Your task to perform on an android device: turn on the 12-hour format for clock Image 0: 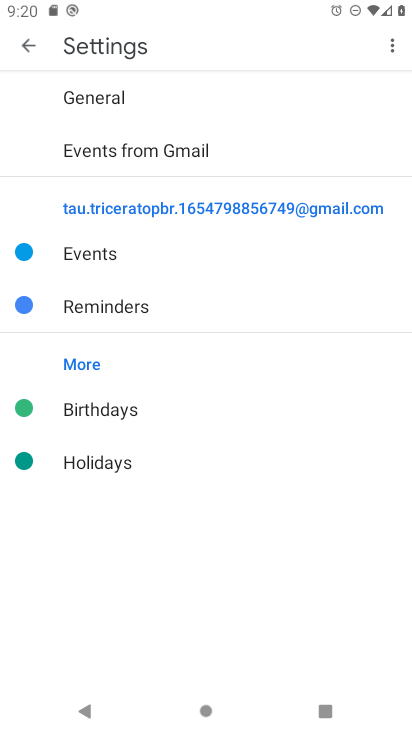
Step 0: press home button
Your task to perform on an android device: turn on the 12-hour format for clock Image 1: 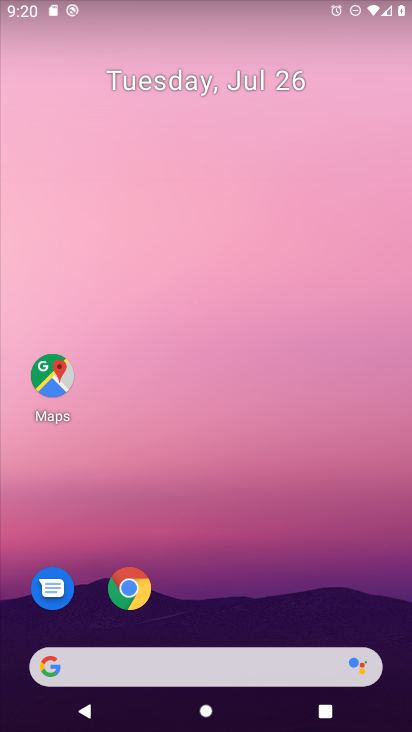
Step 1: drag from (211, 614) to (312, 21)
Your task to perform on an android device: turn on the 12-hour format for clock Image 2: 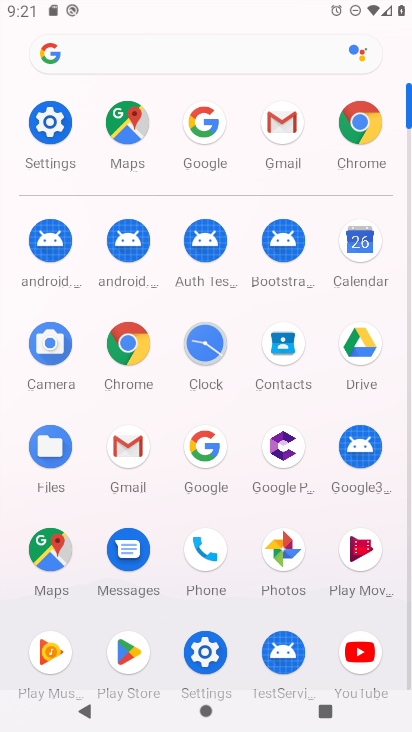
Step 2: click (190, 352)
Your task to perform on an android device: turn on the 12-hour format for clock Image 3: 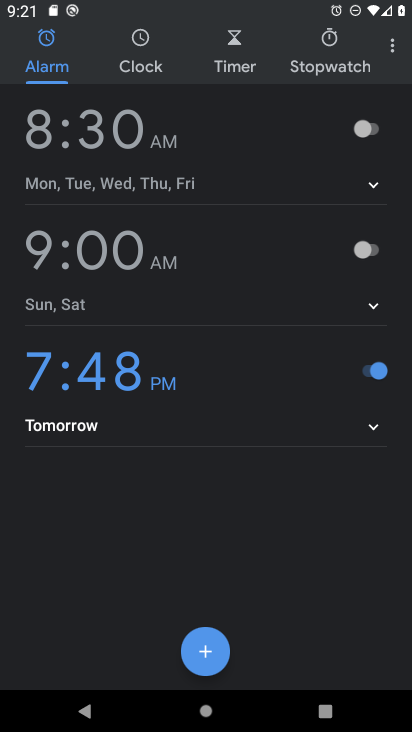
Step 3: click (392, 52)
Your task to perform on an android device: turn on the 12-hour format for clock Image 4: 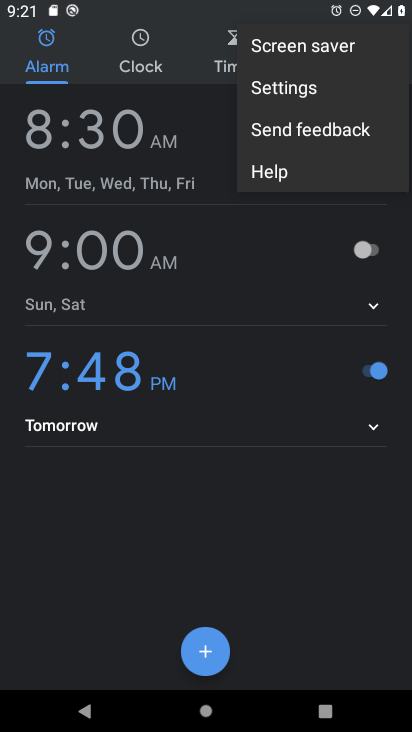
Step 4: click (274, 95)
Your task to perform on an android device: turn on the 12-hour format for clock Image 5: 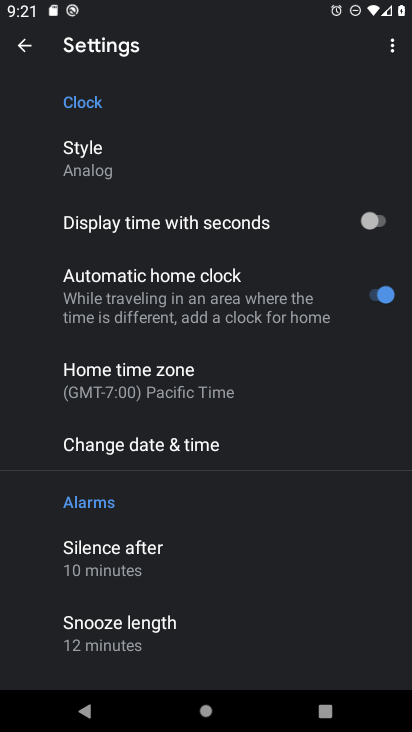
Step 5: click (162, 443)
Your task to perform on an android device: turn on the 12-hour format for clock Image 6: 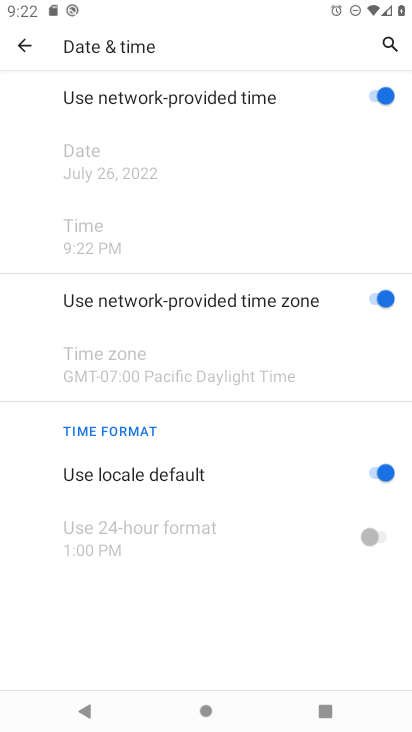
Step 6: task complete